Your task to perform on an android device: Open calendar and show me the fourth week of next month Image 0: 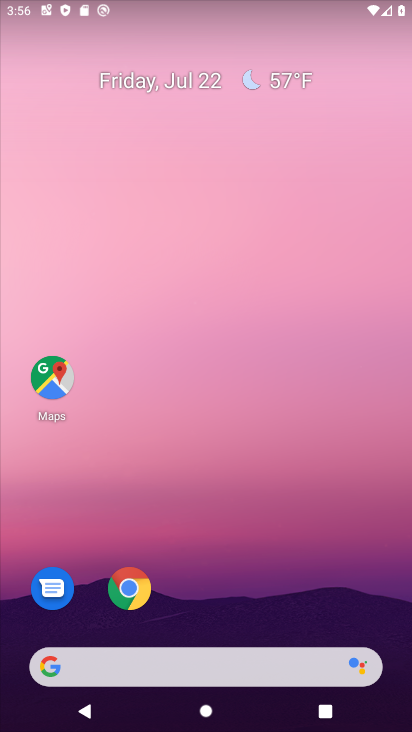
Step 0: press home button
Your task to perform on an android device: Open calendar and show me the fourth week of next month Image 1: 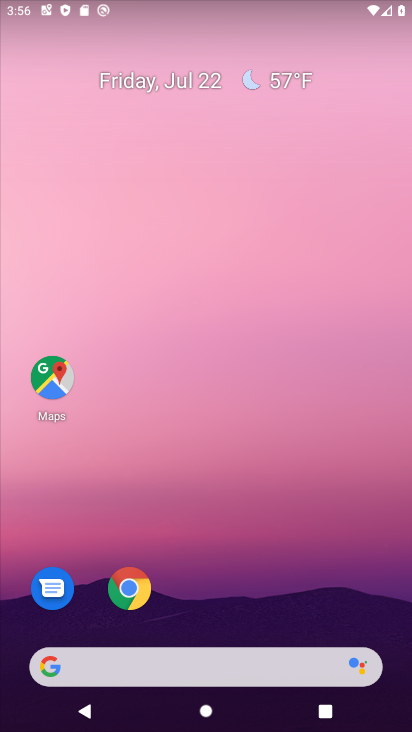
Step 1: press home button
Your task to perform on an android device: Open calendar and show me the fourth week of next month Image 2: 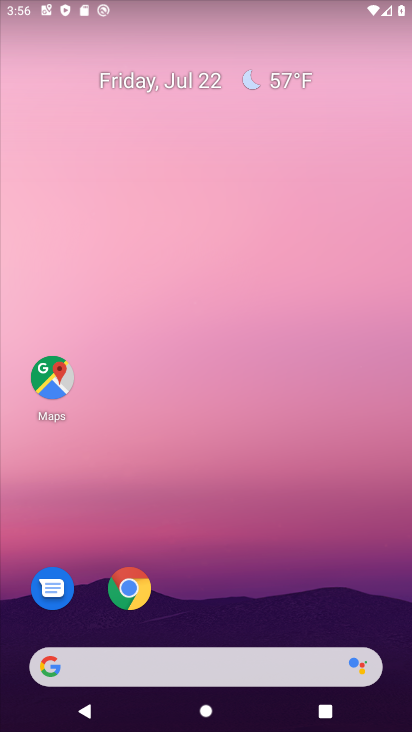
Step 2: drag from (218, 640) to (178, 89)
Your task to perform on an android device: Open calendar and show me the fourth week of next month Image 3: 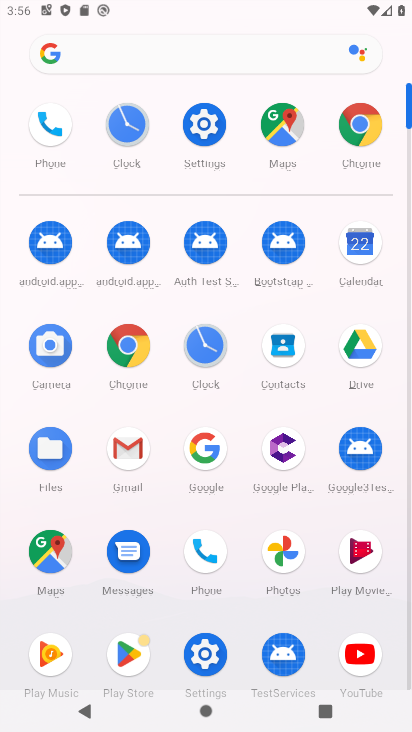
Step 3: click (357, 256)
Your task to perform on an android device: Open calendar and show me the fourth week of next month Image 4: 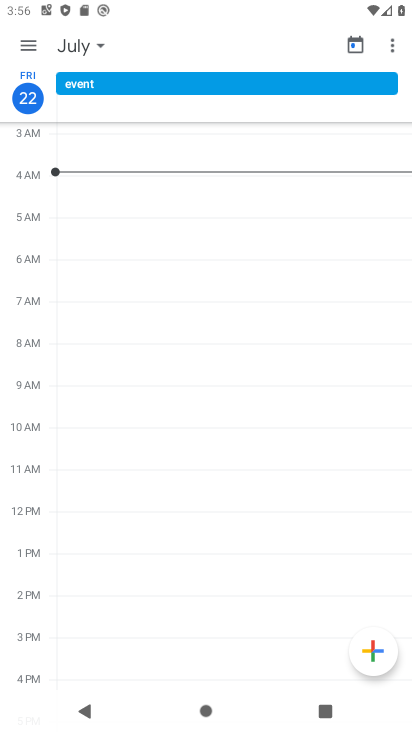
Step 4: click (23, 52)
Your task to perform on an android device: Open calendar and show me the fourth week of next month Image 5: 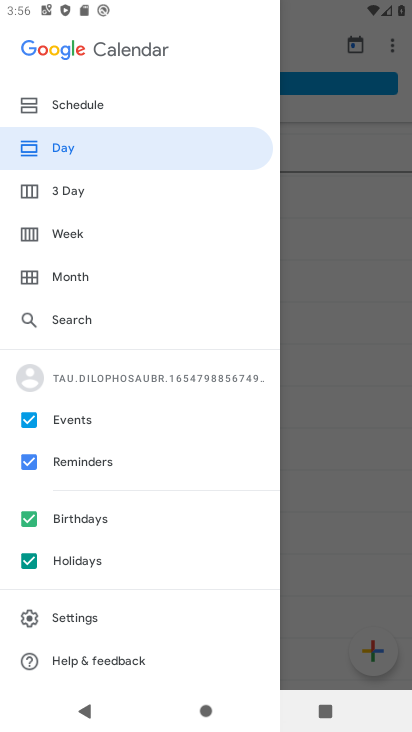
Step 5: click (69, 233)
Your task to perform on an android device: Open calendar and show me the fourth week of next month Image 6: 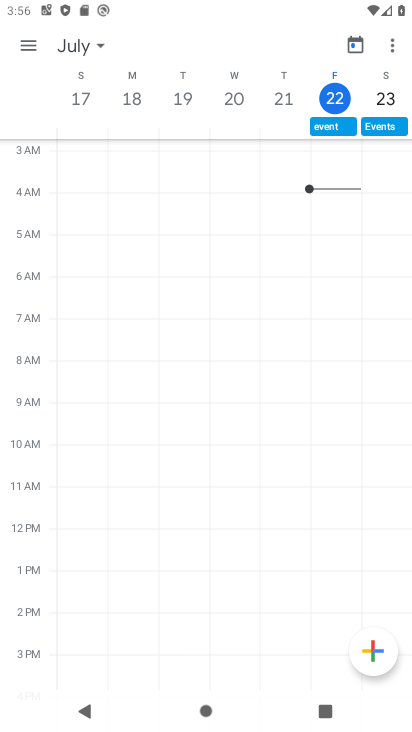
Step 6: task complete